Your task to perform on an android device: Open Chrome and go to settings Image 0: 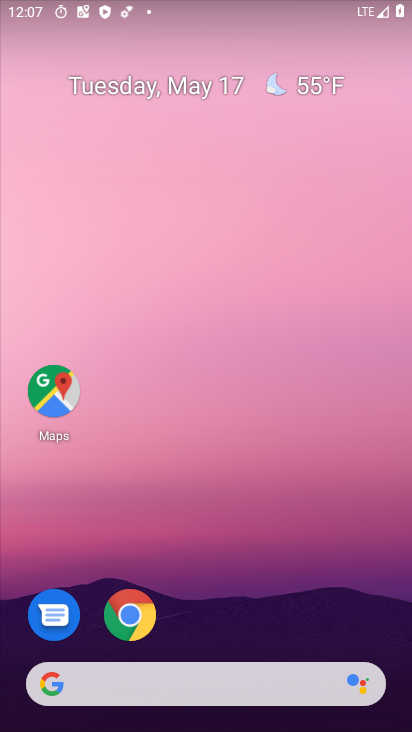
Step 0: press home button
Your task to perform on an android device: Open Chrome and go to settings Image 1: 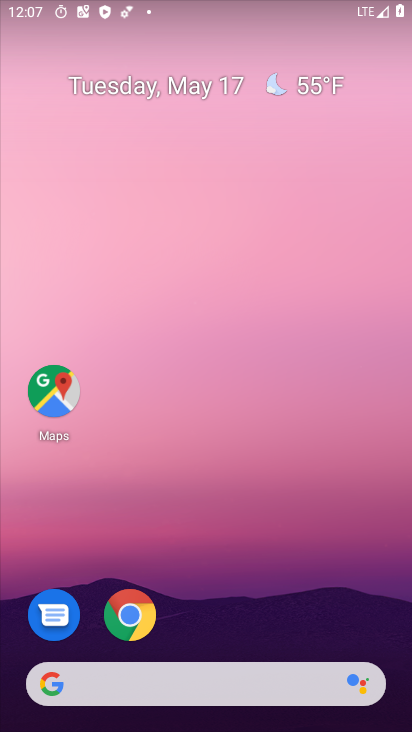
Step 1: press home button
Your task to perform on an android device: Open Chrome and go to settings Image 2: 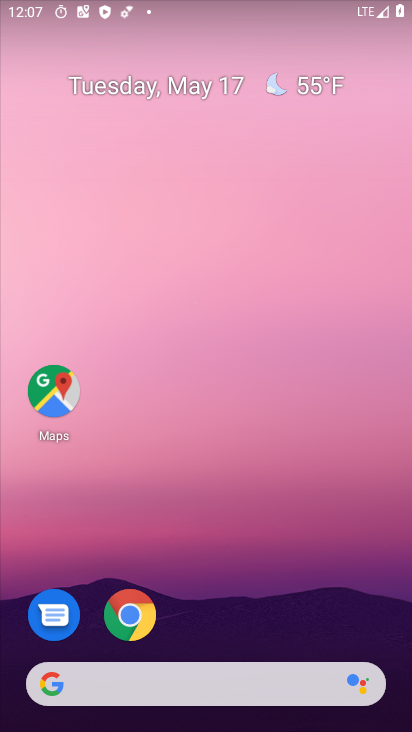
Step 2: click (132, 597)
Your task to perform on an android device: Open Chrome and go to settings Image 3: 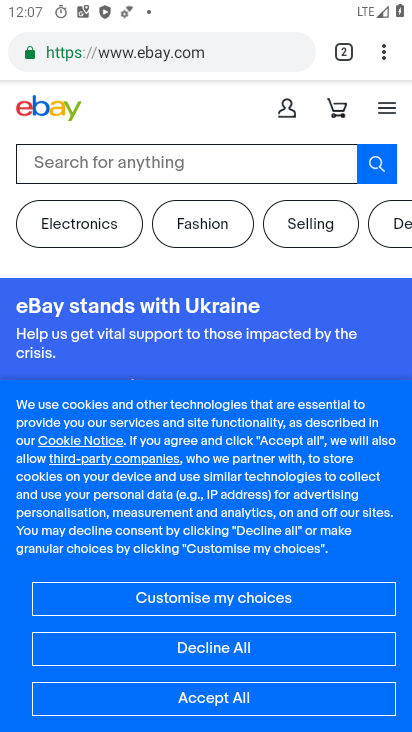
Step 3: drag from (389, 55) to (211, 631)
Your task to perform on an android device: Open Chrome and go to settings Image 4: 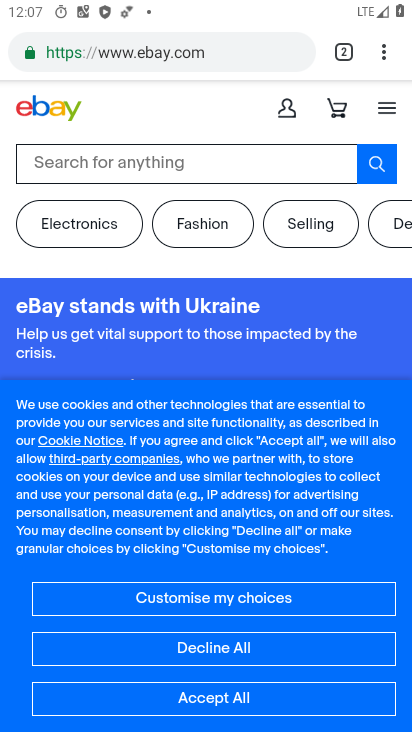
Step 4: click (211, 631)
Your task to perform on an android device: Open Chrome and go to settings Image 5: 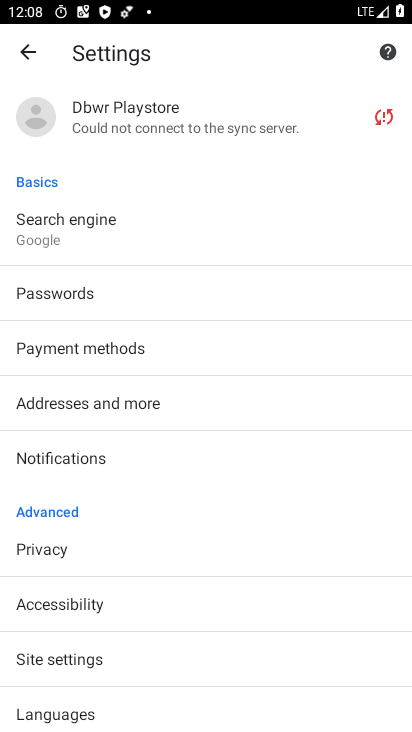
Step 5: task complete